Your task to perform on an android device: toggle notifications settings in the gmail app Image 0: 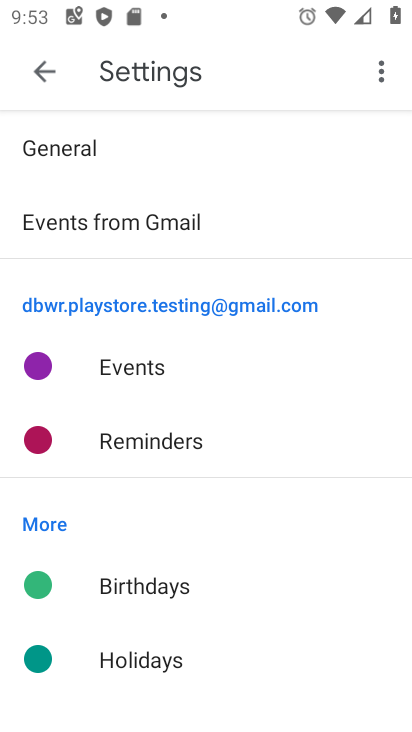
Step 0: press home button
Your task to perform on an android device: toggle notifications settings in the gmail app Image 1: 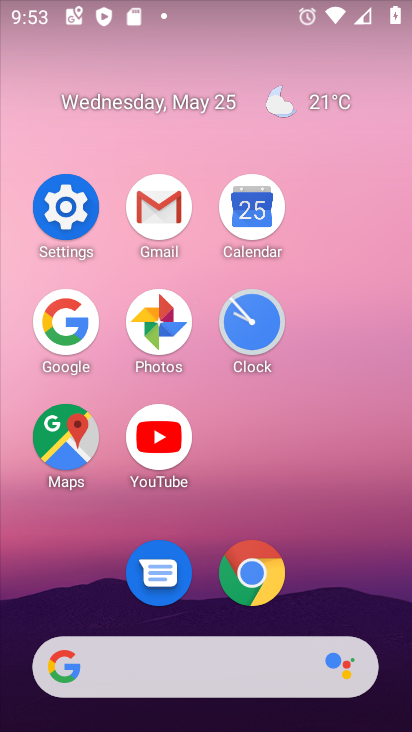
Step 1: click (144, 218)
Your task to perform on an android device: toggle notifications settings in the gmail app Image 2: 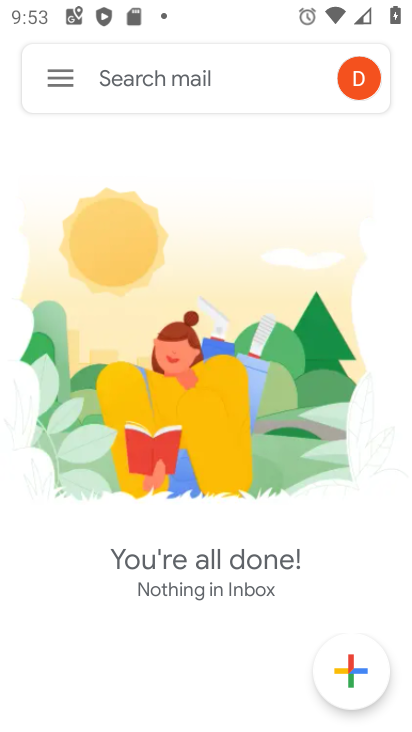
Step 2: click (70, 88)
Your task to perform on an android device: toggle notifications settings in the gmail app Image 3: 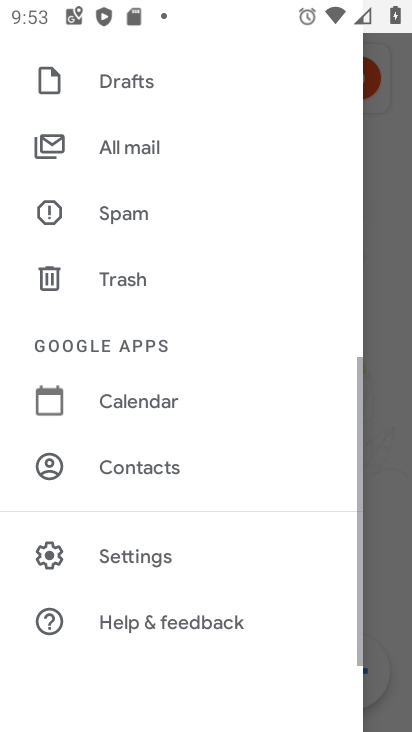
Step 3: click (216, 560)
Your task to perform on an android device: toggle notifications settings in the gmail app Image 4: 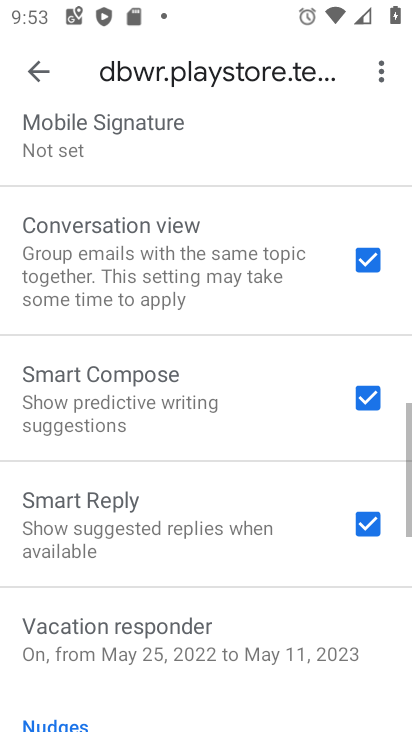
Step 4: drag from (225, 486) to (227, 211)
Your task to perform on an android device: toggle notifications settings in the gmail app Image 5: 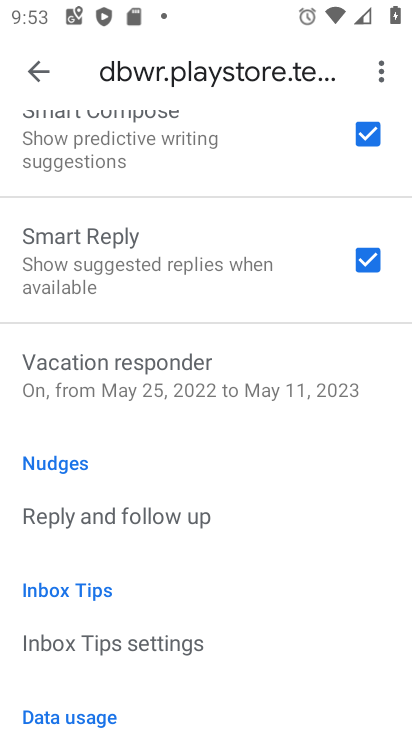
Step 5: drag from (259, 442) to (247, 143)
Your task to perform on an android device: toggle notifications settings in the gmail app Image 6: 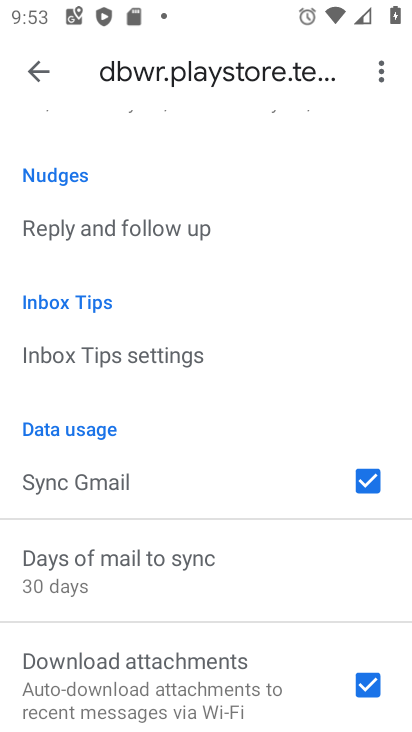
Step 6: drag from (241, 184) to (289, 722)
Your task to perform on an android device: toggle notifications settings in the gmail app Image 7: 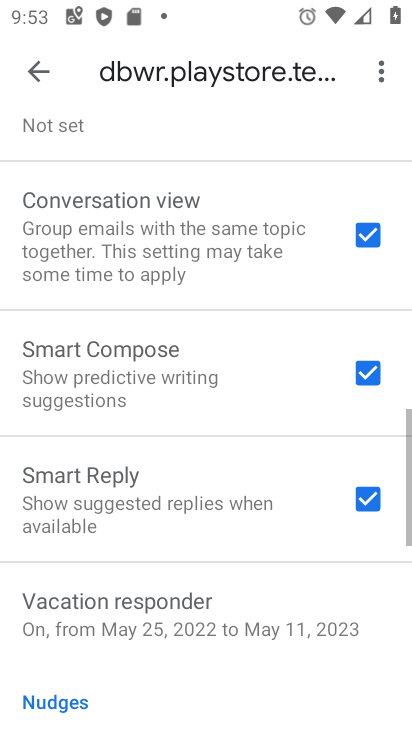
Step 7: drag from (218, 193) to (238, 683)
Your task to perform on an android device: toggle notifications settings in the gmail app Image 8: 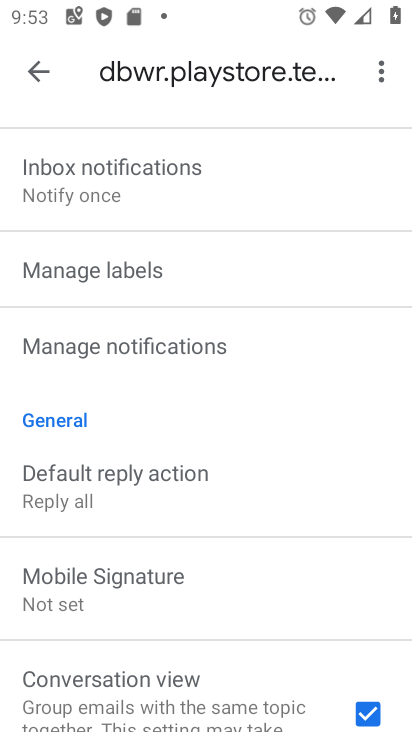
Step 8: drag from (161, 279) to (198, 661)
Your task to perform on an android device: toggle notifications settings in the gmail app Image 9: 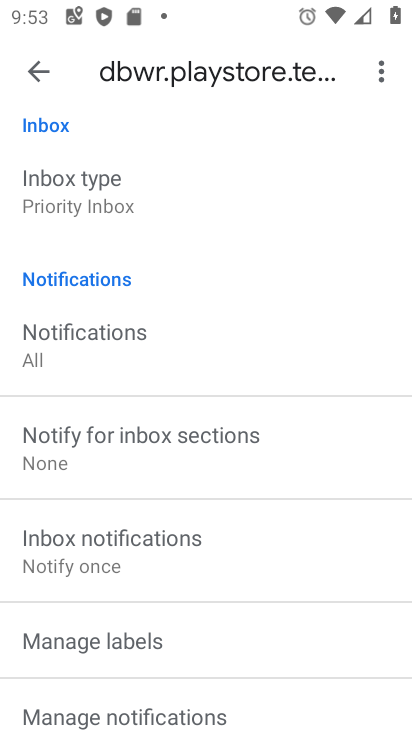
Step 9: click (131, 348)
Your task to perform on an android device: toggle notifications settings in the gmail app Image 10: 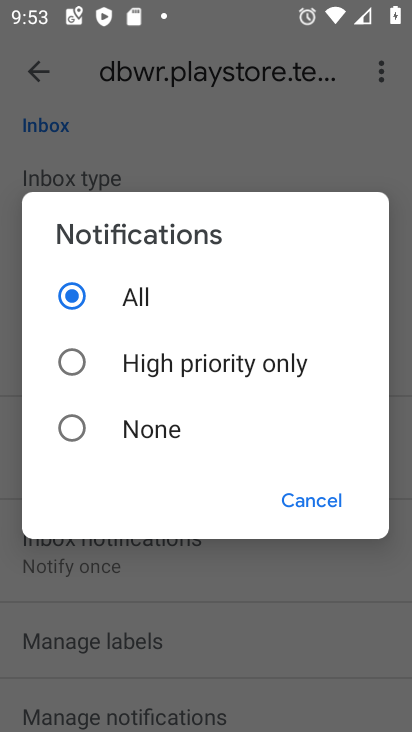
Step 10: click (88, 346)
Your task to perform on an android device: toggle notifications settings in the gmail app Image 11: 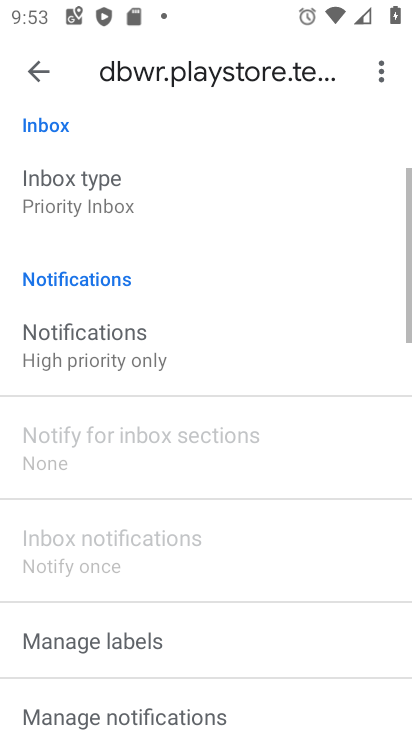
Step 11: task complete